Your task to perform on an android device: Go to Yahoo.com Image 0: 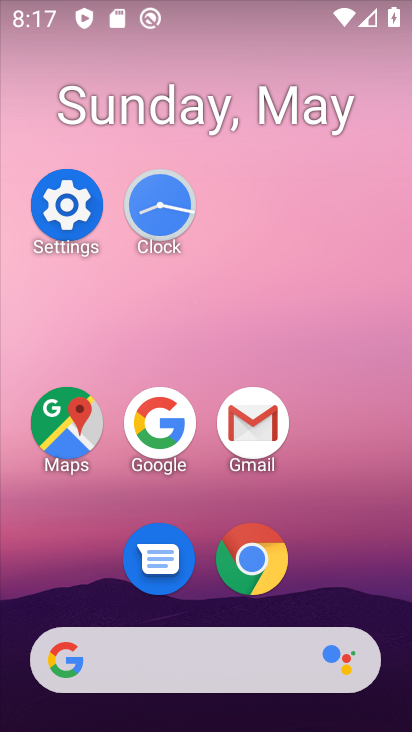
Step 0: click (269, 554)
Your task to perform on an android device: Go to Yahoo.com Image 1: 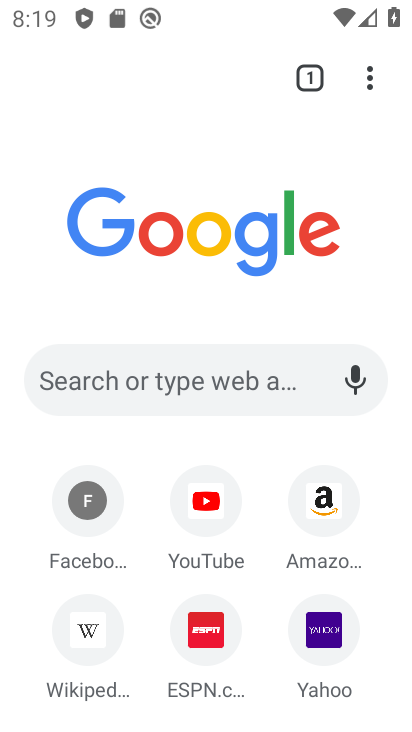
Step 1: click (316, 624)
Your task to perform on an android device: Go to Yahoo.com Image 2: 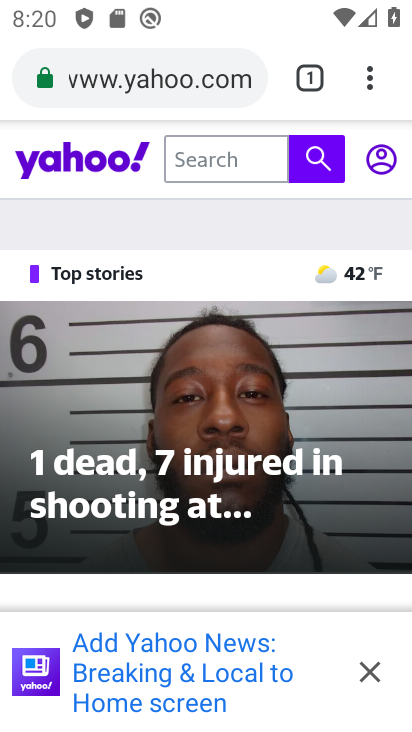
Step 2: task complete